Your task to perform on an android device: Go to Google maps Image 0: 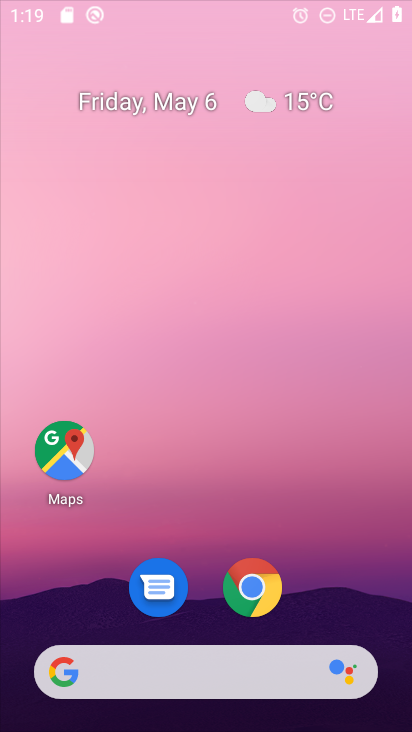
Step 0: press home button
Your task to perform on an android device: Go to Google maps Image 1: 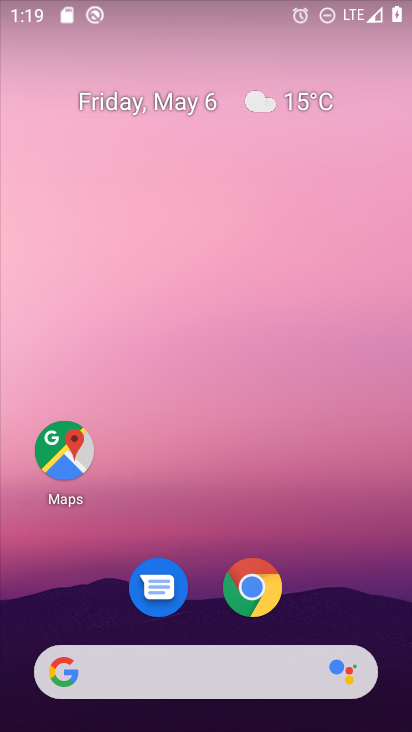
Step 1: drag from (332, 534) to (241, 13)
Your task to perform on an android device: Go to Google maps Image 2: 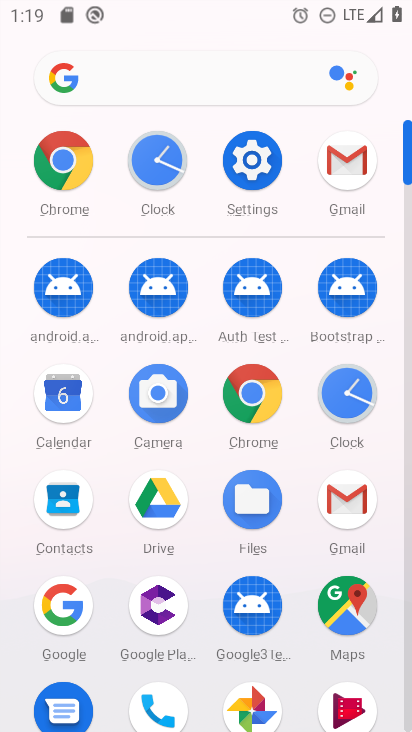
Step 2: click (346, 610)
Your task to perform on an android device: Go to Google maps Image 3: 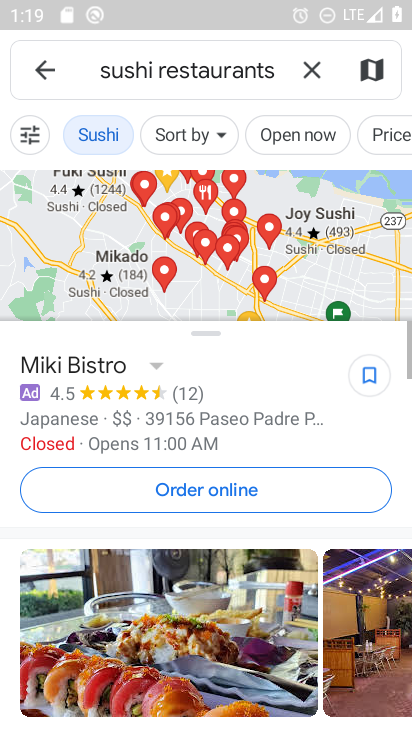
Step 3: task complete